Your task to perform on an android device: Open Google Maps Image 0: 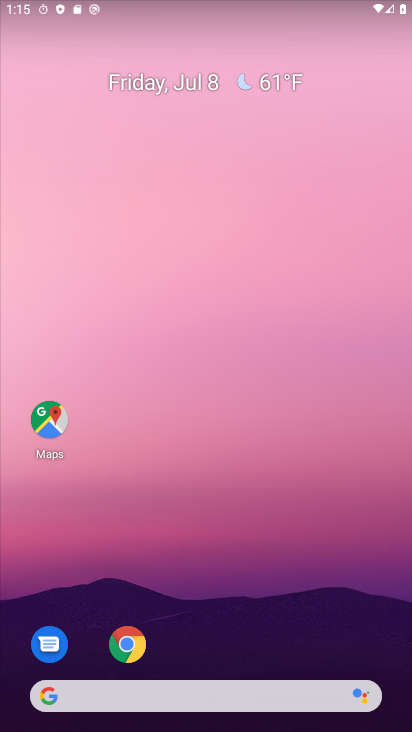
Step 0: press home button
Your task to perform on an android device: Open Google Maps Image 1: 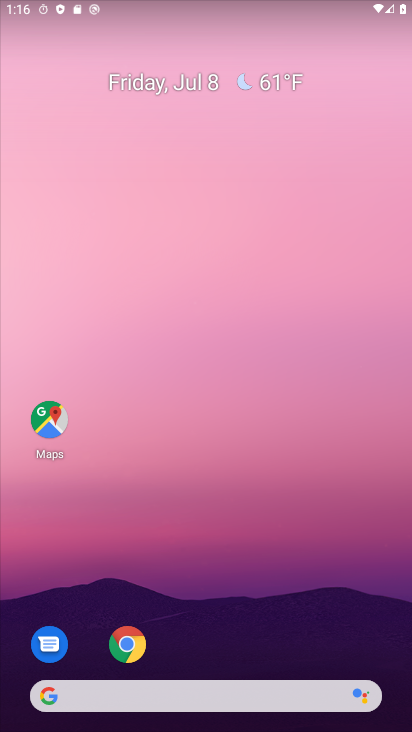
Step 1: click (57, 422)
Your task to perform on an android device: Open Google Maps Image 2: 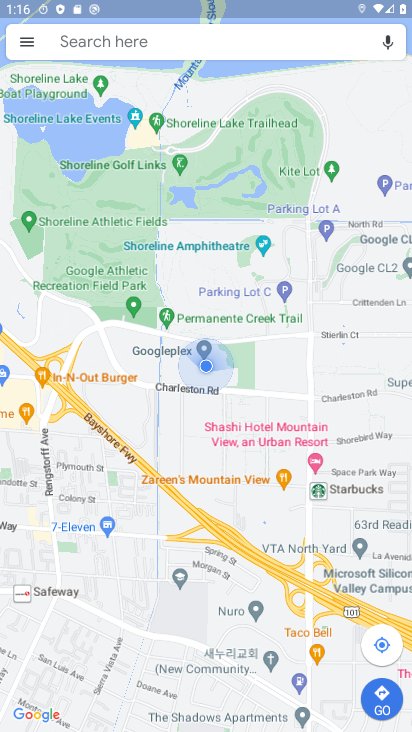
Step 2: task complete